Your task to perform on an android device: Open accessibility settings Image 0: 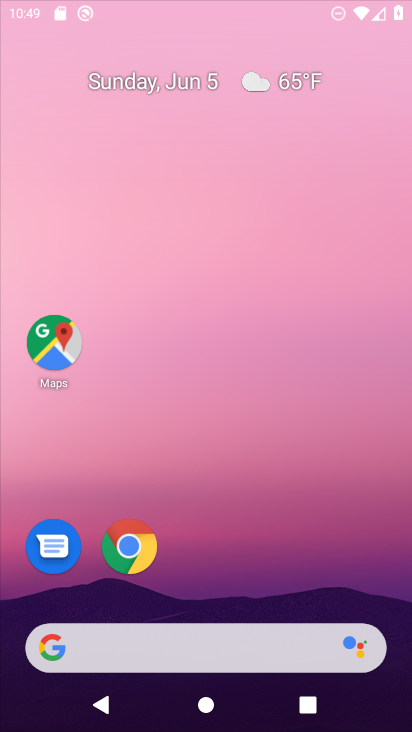
Step 0: drag from (200, 244) to (240, 211)
Your task to perform on an android device: Open accessibility settings Image 1: 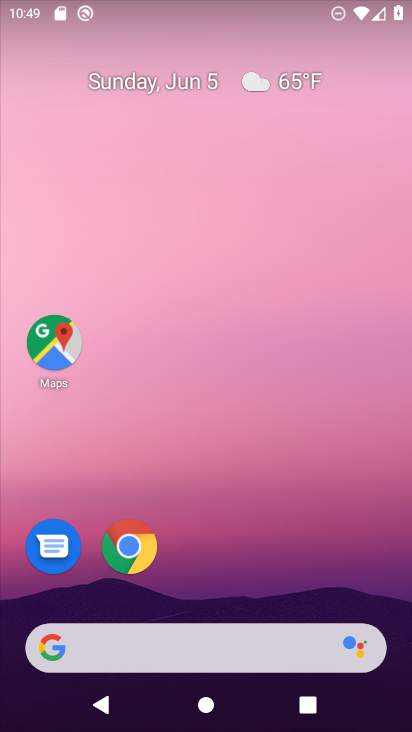
Step 1: drag from (187, 619) to (201, 223)
Your task to perform on an android device: Open accessibility settings Image 2: 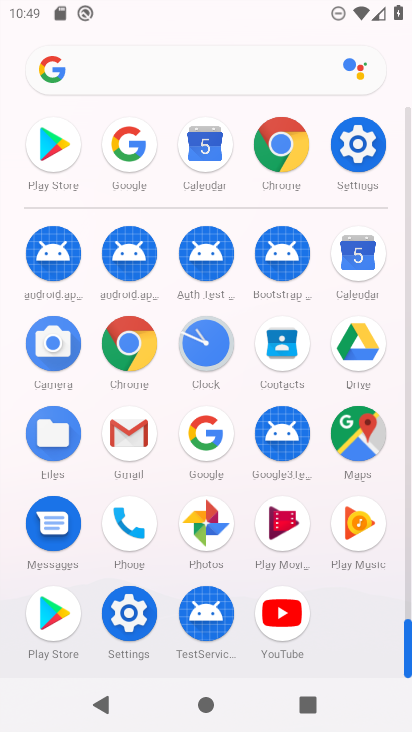
Step 2: click (356, 134)
Your task to perform on an android device: Open accessibility settings Image 3: 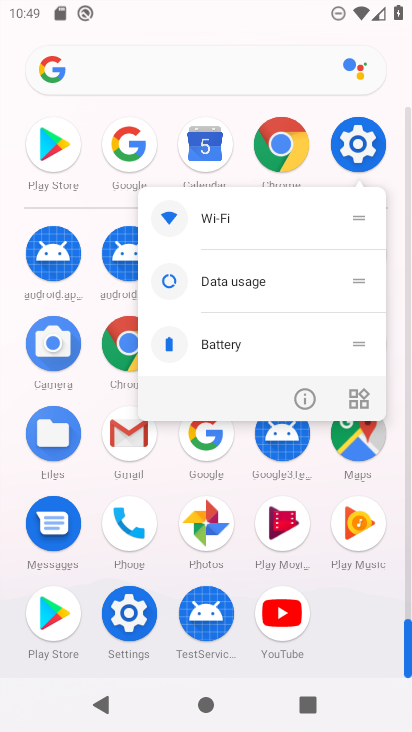
Step 3: click (309, 394)
Your task to perform on an android device: Open accessibility settings Image 4: 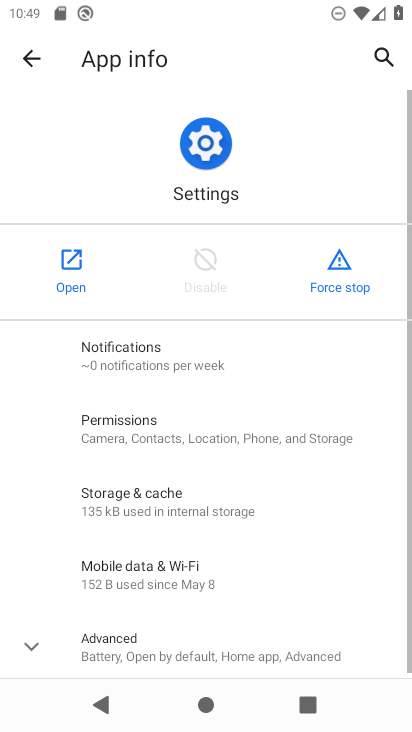
Step 4: click (50, 265)
Your task to perform on an android device: Open accessibility settings Image 5: 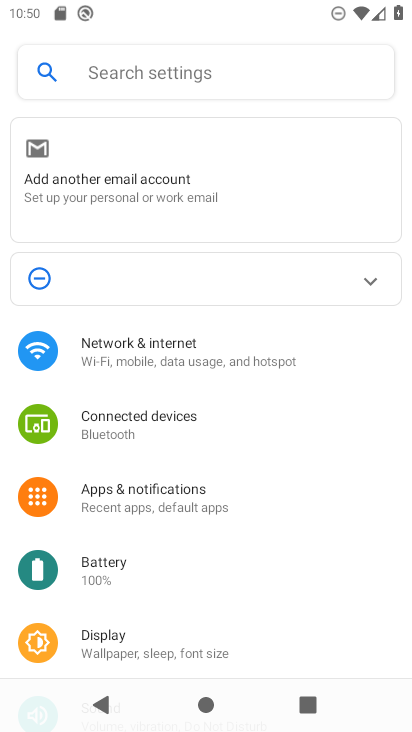
Step 5: drag from (236, 472) to (308, 242)
Your task to perform on an android device: Open accessibility settings Image 6: 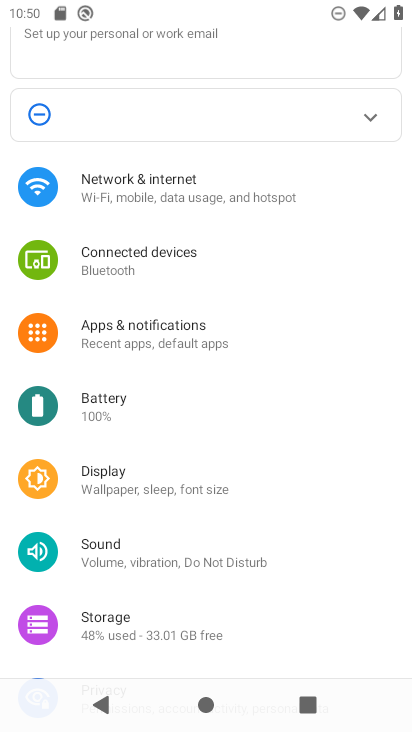
Step 6: drag from (187, 496) to (304, 182)
Your task to perform on an android device: Open accessibility settings Image 7: 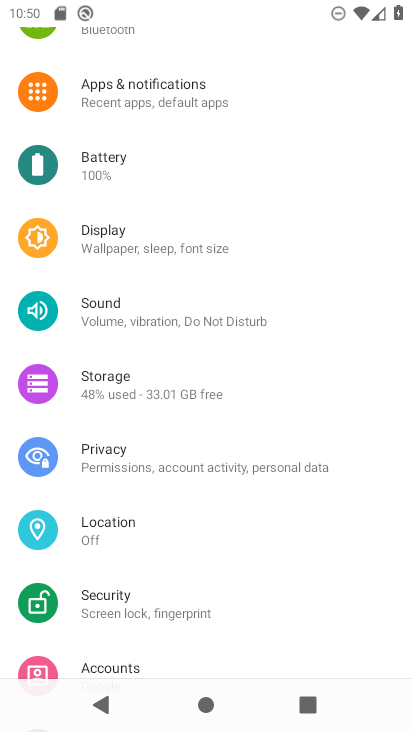
Step 7: drag from (193, 528) to (122, 6)
Your task to perform on an android device: Open accessibility settings Image 8: 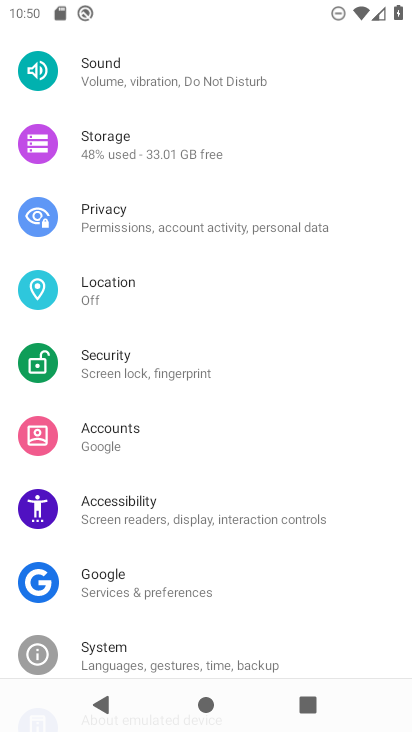
Step 8: click (162, 501)
Your task to perform on an android device: Open accessibility settings Image 9: 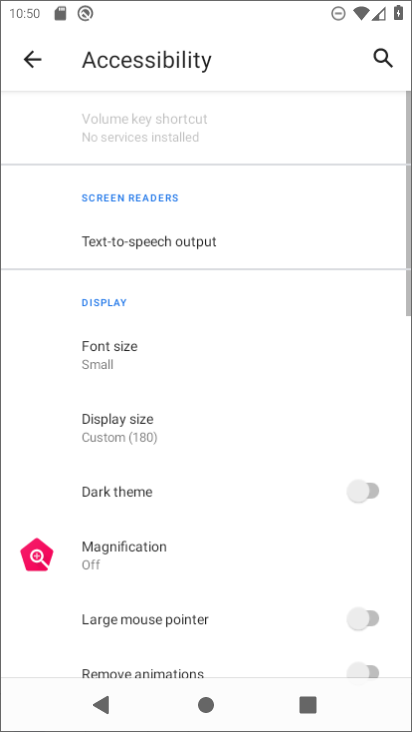
Step 9: task complete